Your task to perform on an android device: Open Youtube and go to the subscriptions tab Image 0: 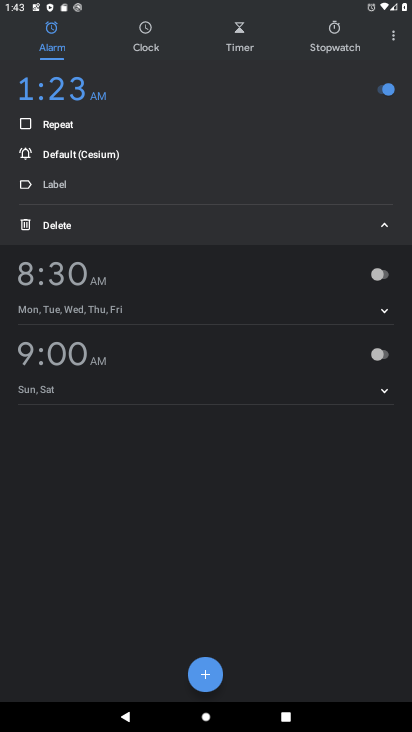
Step 0: press home button
Your task to perform on an android device: Open Youtube and go to the subscriptions tab Image 1: 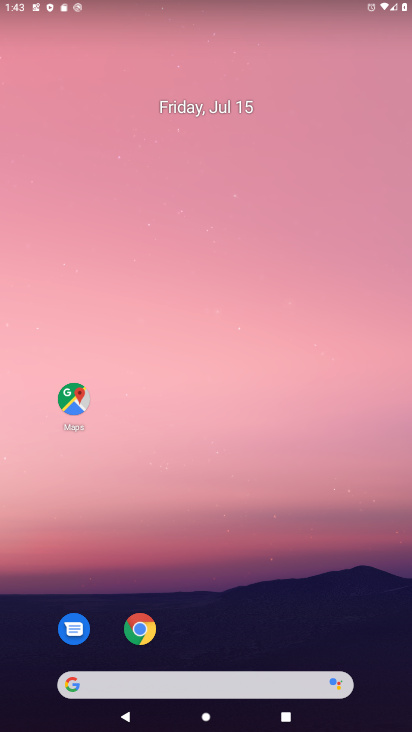
Step 1: drag from (335, 620) to (247, 126)
Your task to perform on an android device: Open Youtube and go to the subscriptions tab Image 2: 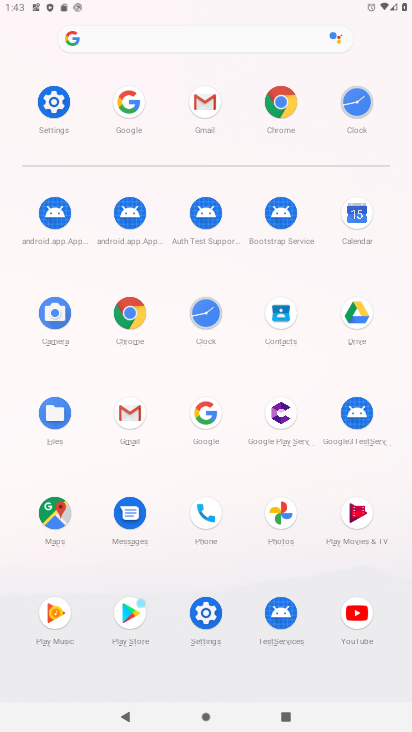
Step 2: click (354, 622)
Your task to perform on an android device: Open Youtube and go to the subscriptions tab Image 3: 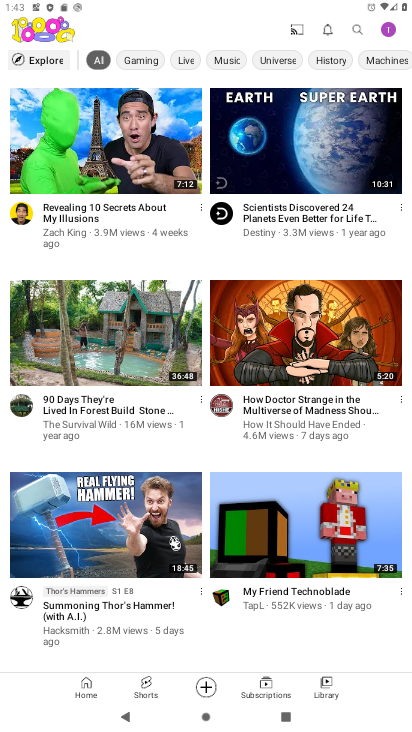
Step 3: click (277, 698)
Your task to perform on an android device: Open Youtube and go to the subscriptions tab Image 4: 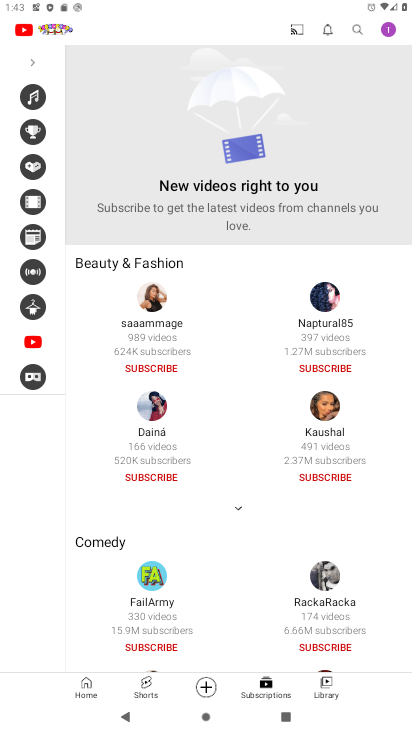
Step 4: task complete